Your task to perform on an android device: Open Reddit.com Image 0: 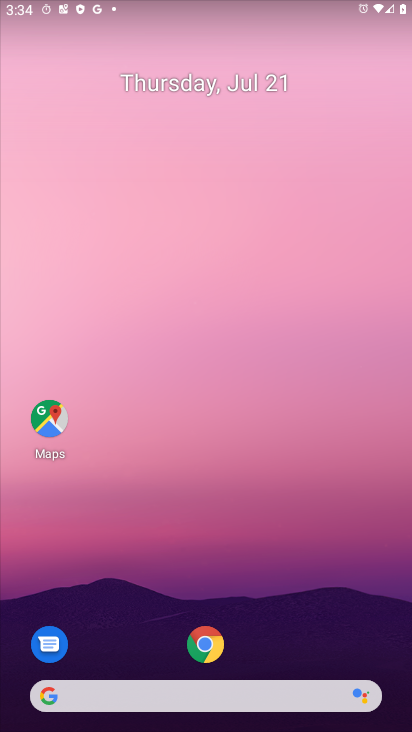
Step 0: press home button
Your task to perform on an android device: Open Reddit.com Image 1: 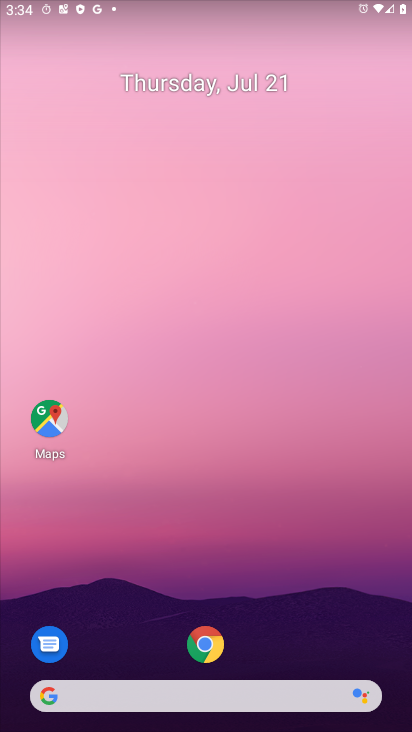
Step 1: click (42, 697)
Your task to perform on an android device: Open Reddit.com Image 2: 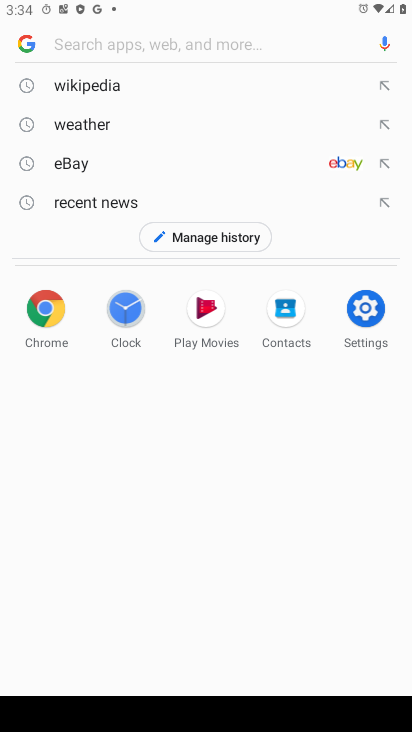
Step 2: type "Reddit.com"
Your task to perform on an android device: Open Reddit.com Image 3: 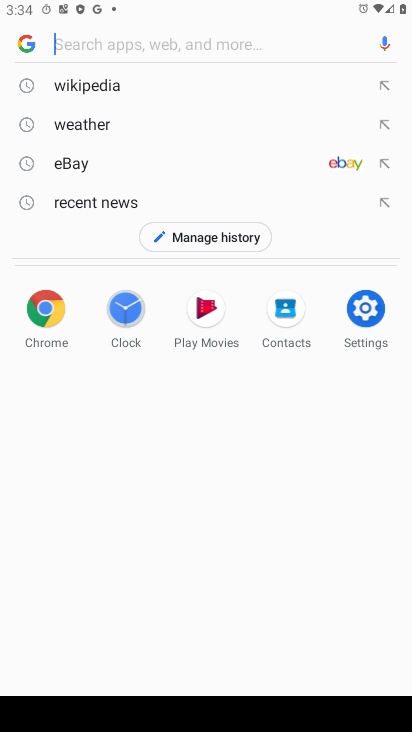
Step 3: click (71, 43)
Your task to perform on an android device: Open Reddit.com Image 4: 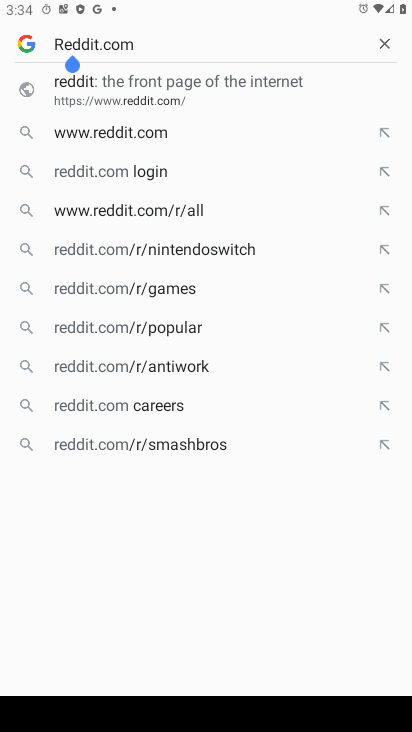
Step 4: press enter
Your task to perform on an android device: Open Reddit.com Image 5: 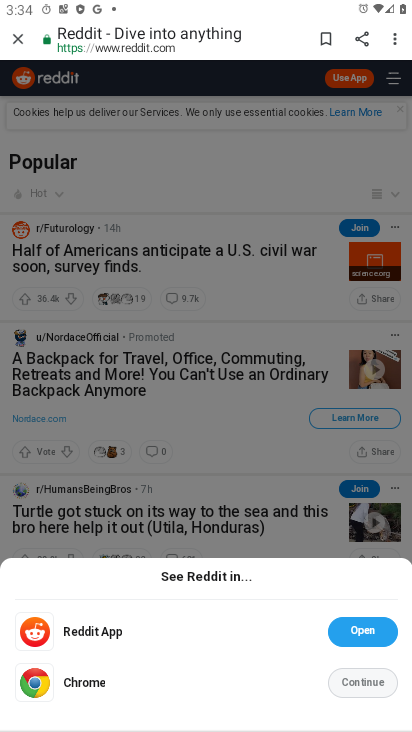
Step 5: task complete